Your task to perform on an android device: toggle javascript in the chrome app Image 0: 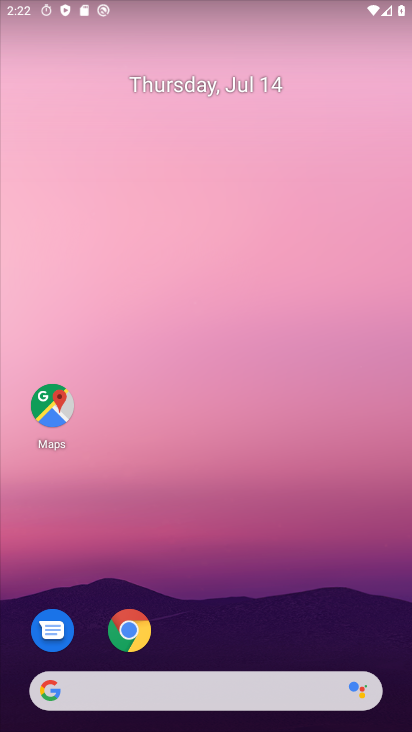
Step 0: click (121, 646)
Your task to perform on an android device: toggle javascript in the chrome app Image 1: 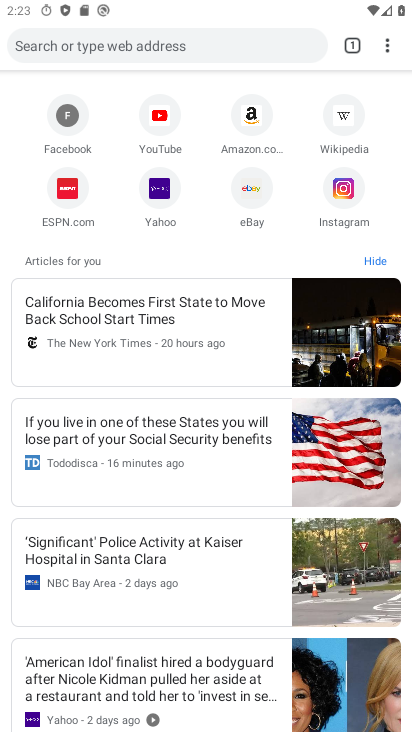
Step 1: click (379, 43)
Your task to perform on an android device: toggle javascript in the chrome app Image 2: 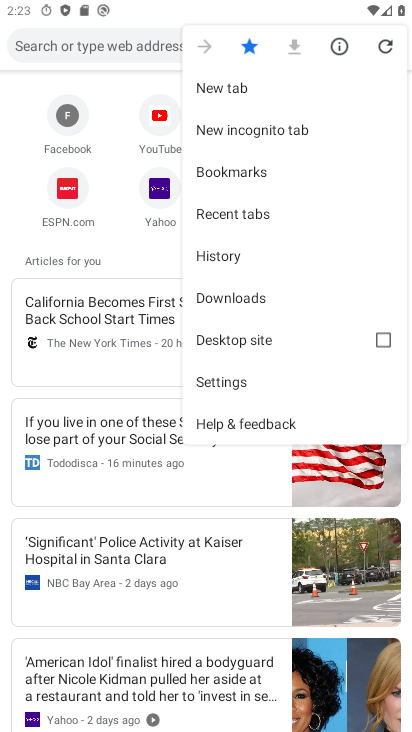
Step 2: click (249, 376)
Your task to perform on an android device: toggle javascript in the chrome app Image 3: 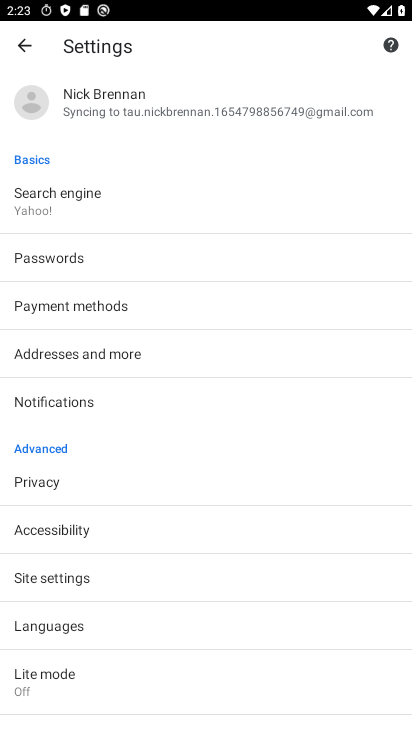
Step 3: click (173, 584)
Your task to perform on an android device: toggle javascript in the chrome app Image 4: 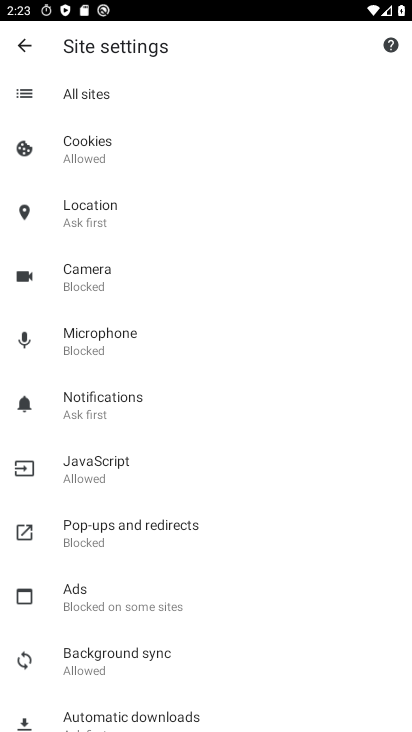
Step 4: click (67, 455)
Your task to perform on an android device: toggle javascript in the chrome app Image 5: 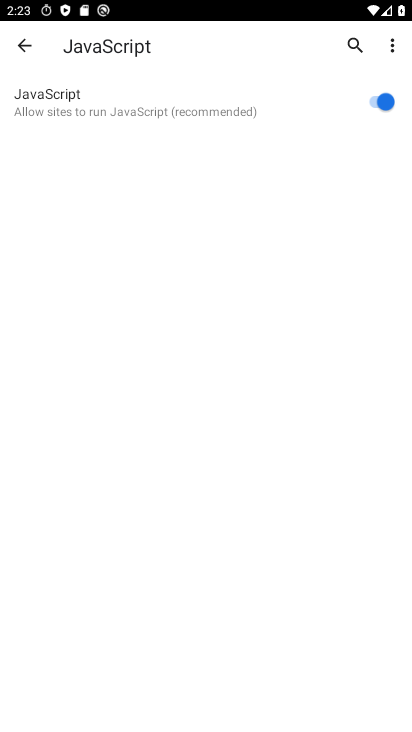
Step 5: click (378, 114)
Your task to perform on an android device: toggle javascript in the chrome app Image 6: 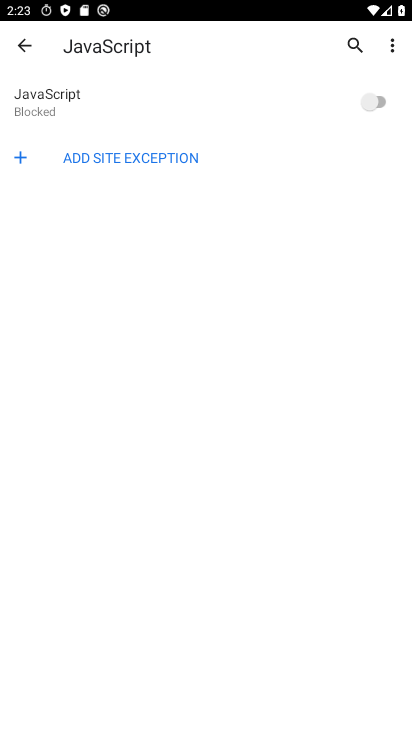
Step 6: task complete